Your task to perform on an android device: install app "Fetch Rewards" Image 0: 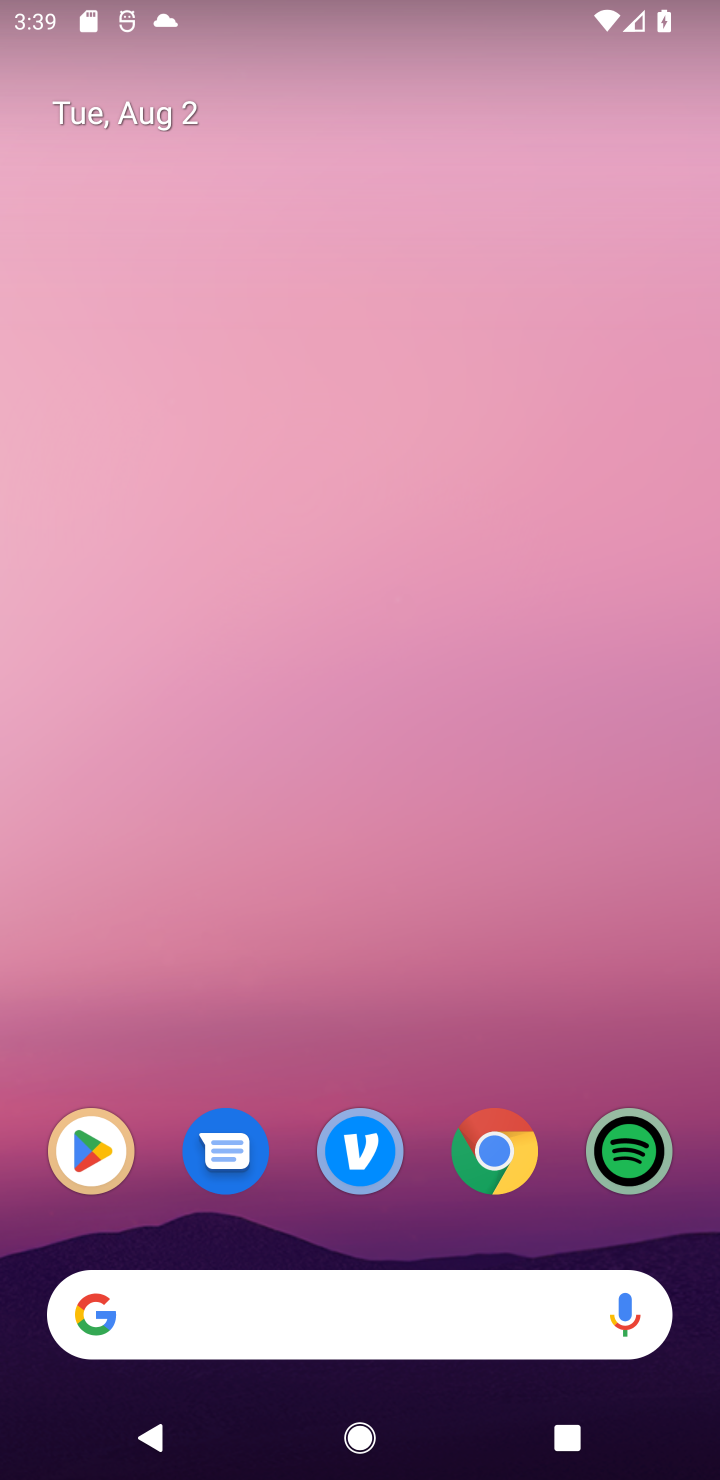
Step 0: drag from (460, 1039) to (435, 309)
Your task to perform on an android device: install app "Fetch Rewards" Image 1: 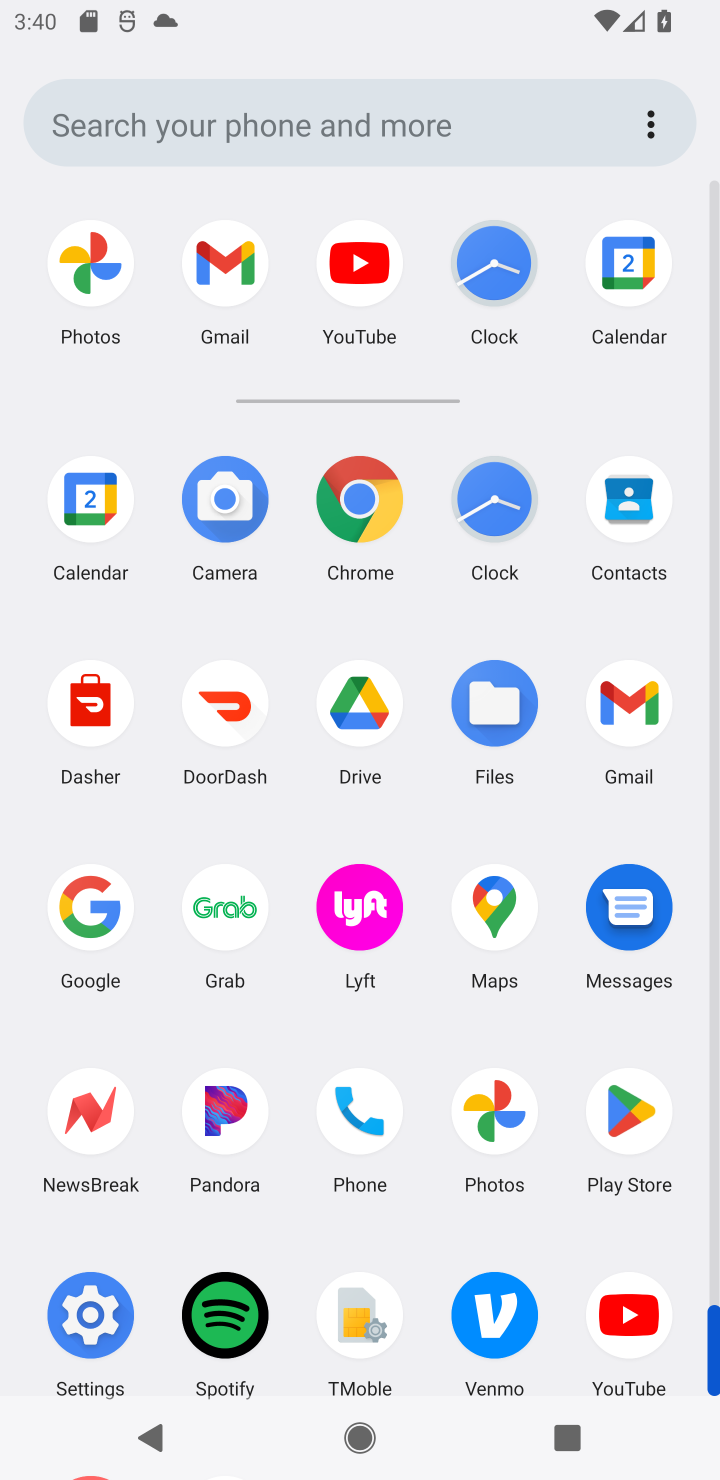
Step 1: click (643, 1134)
Your task to perform on an android device: install app "Fetch Rewards" Image 2: 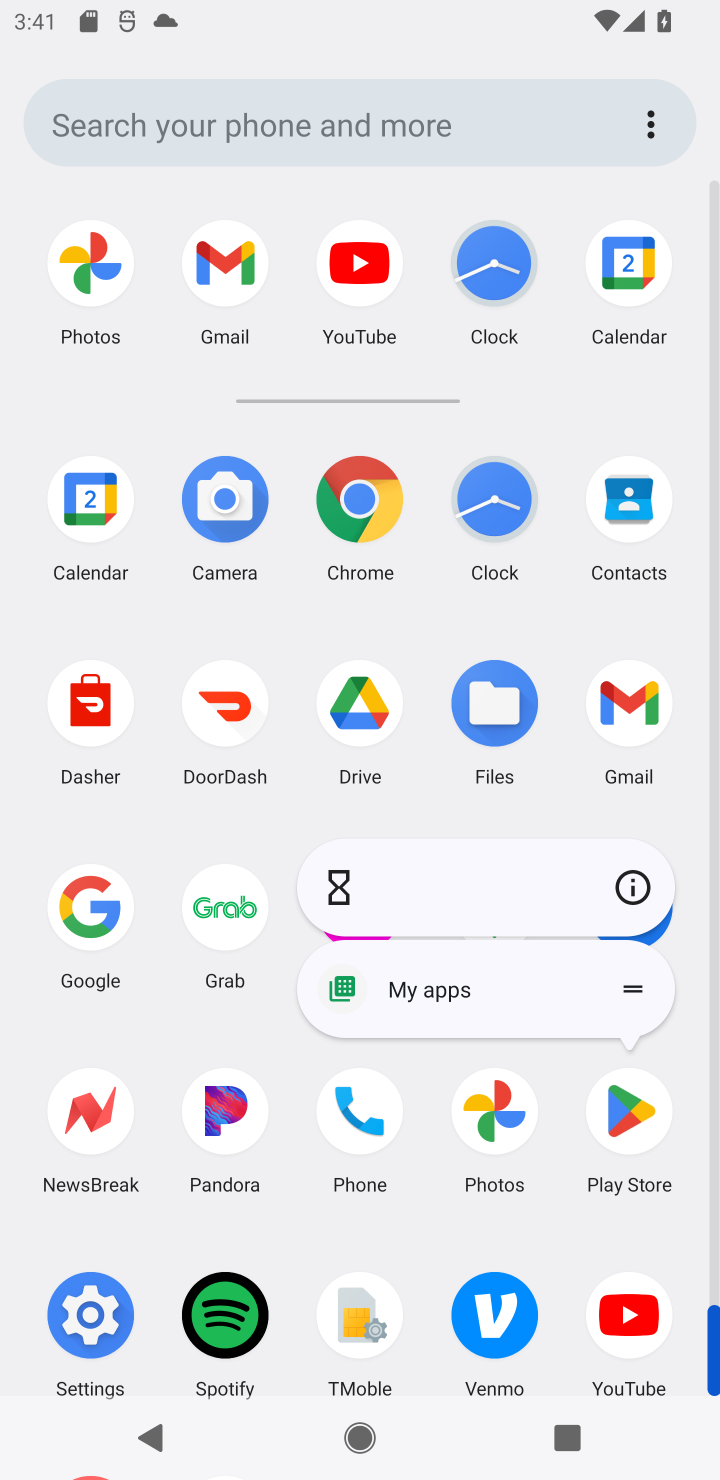
Step 2: click (647, 1133)
Your task to perform on an android device: install app "Fetch Rewards" Image 3: 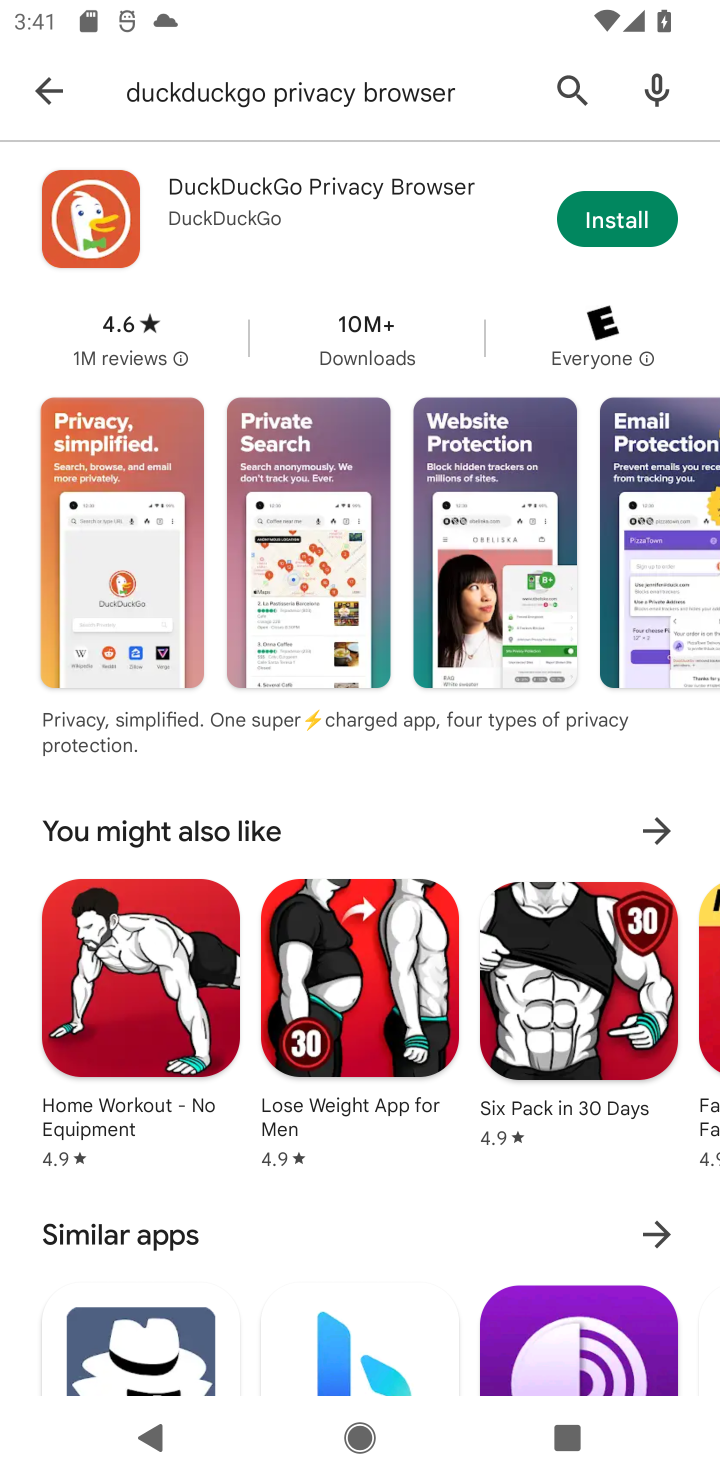
Step 3: click (50, 92)
Your task to perform on an android device: install app "Fetch Rewards" Image 4: 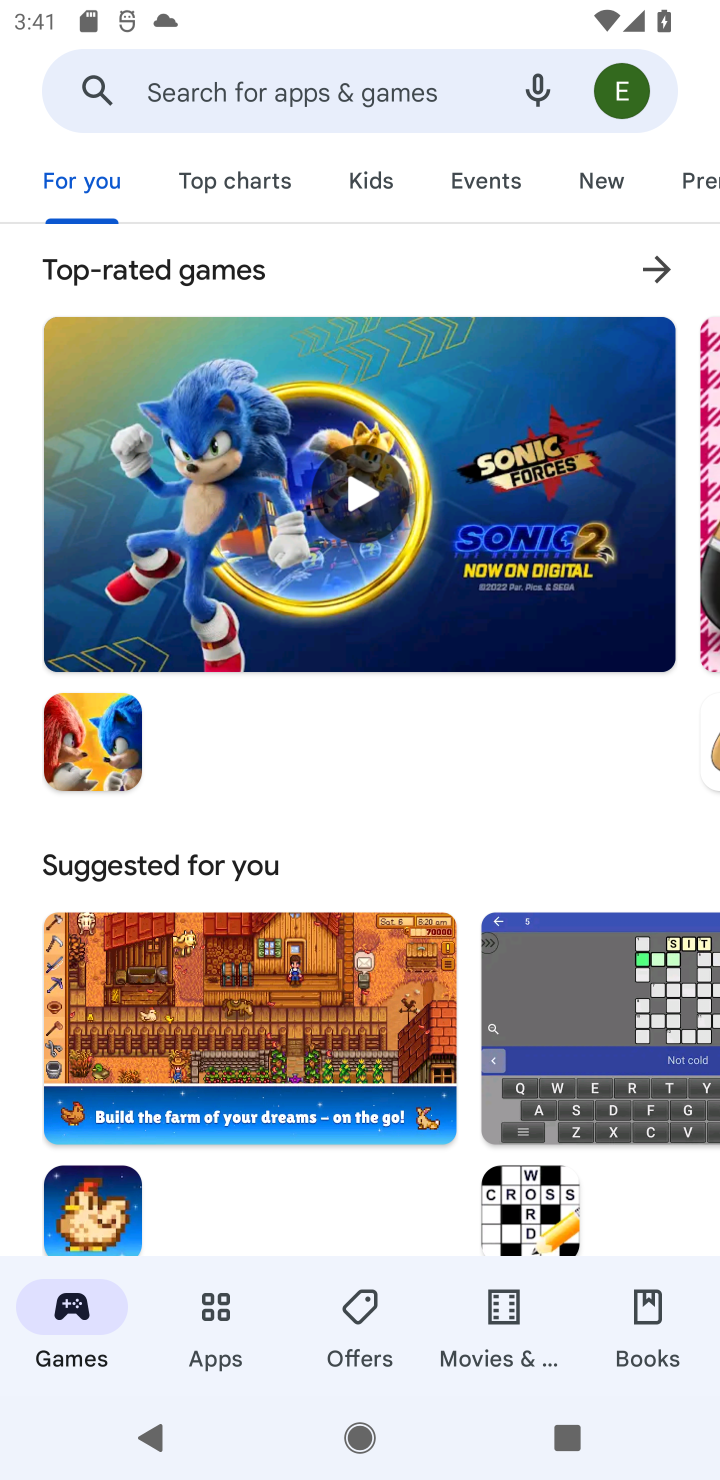
Step 4: click (201, 106)
Your task to perform on an android device: install app "Fetch Rewards" Image 5: 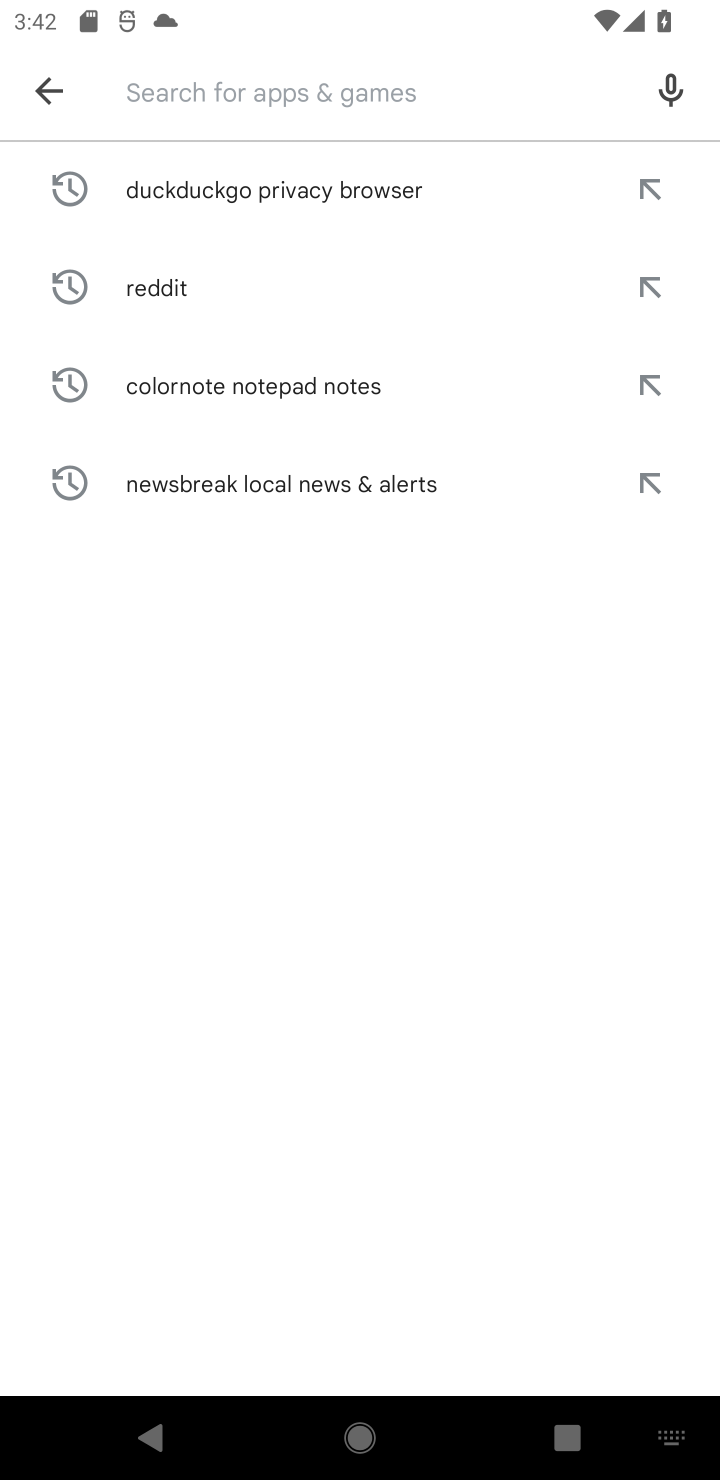
Step 5: type "Fetch Rewards"
Your task to perform on an android device: install app "Fetch Rewards" Image 6: 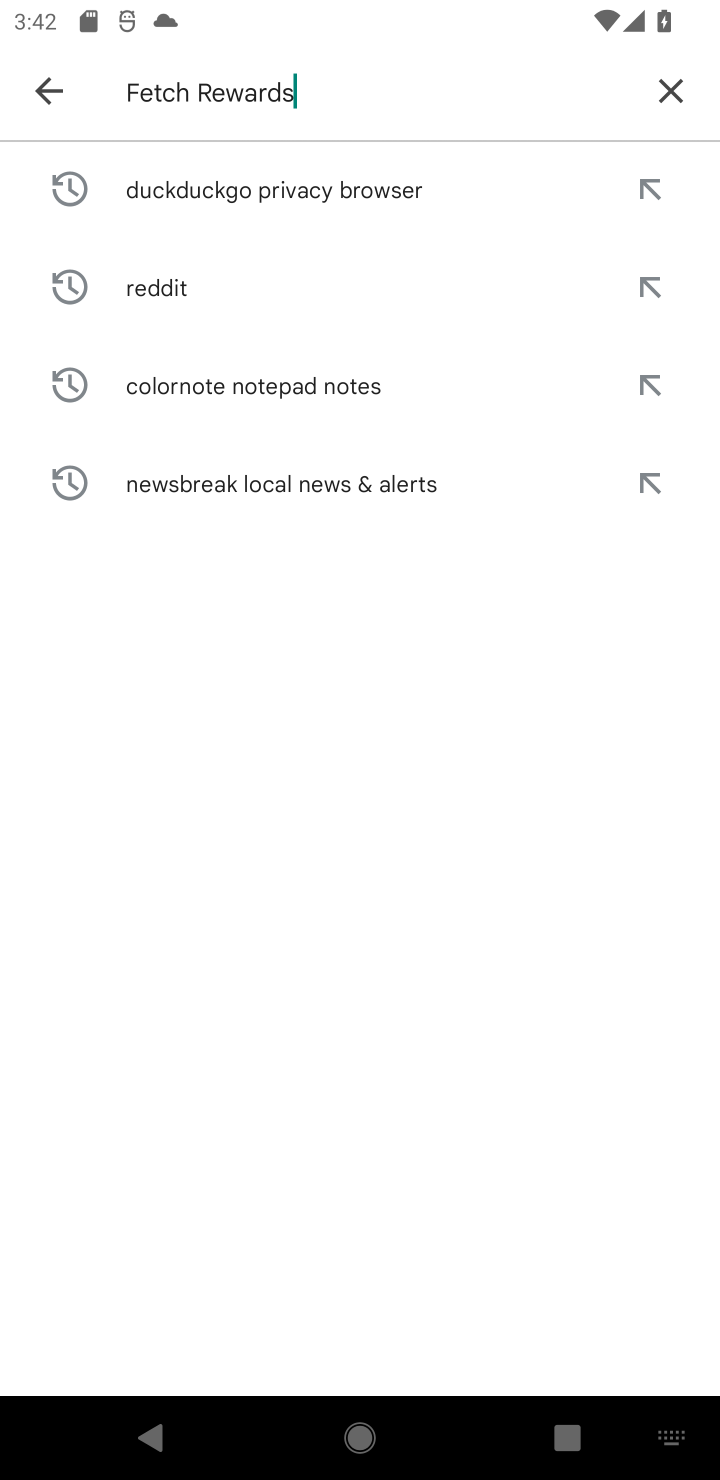
Step 6: type ""
Your task to perform on an android device: install app "Fetch Rewards" Image 7: 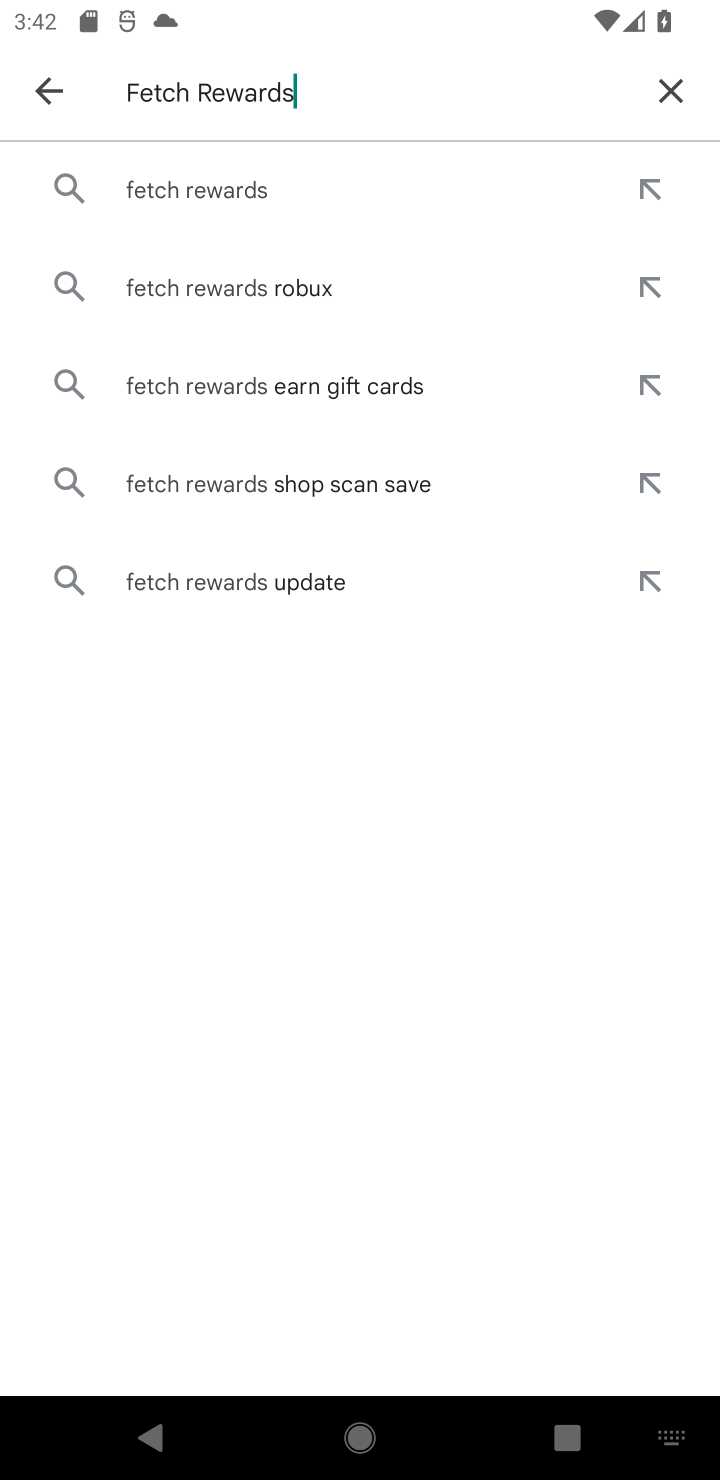
Step 7: click (356, 201)
Your task to perform on an android device: install app "Fetch Rewards" Image 8: 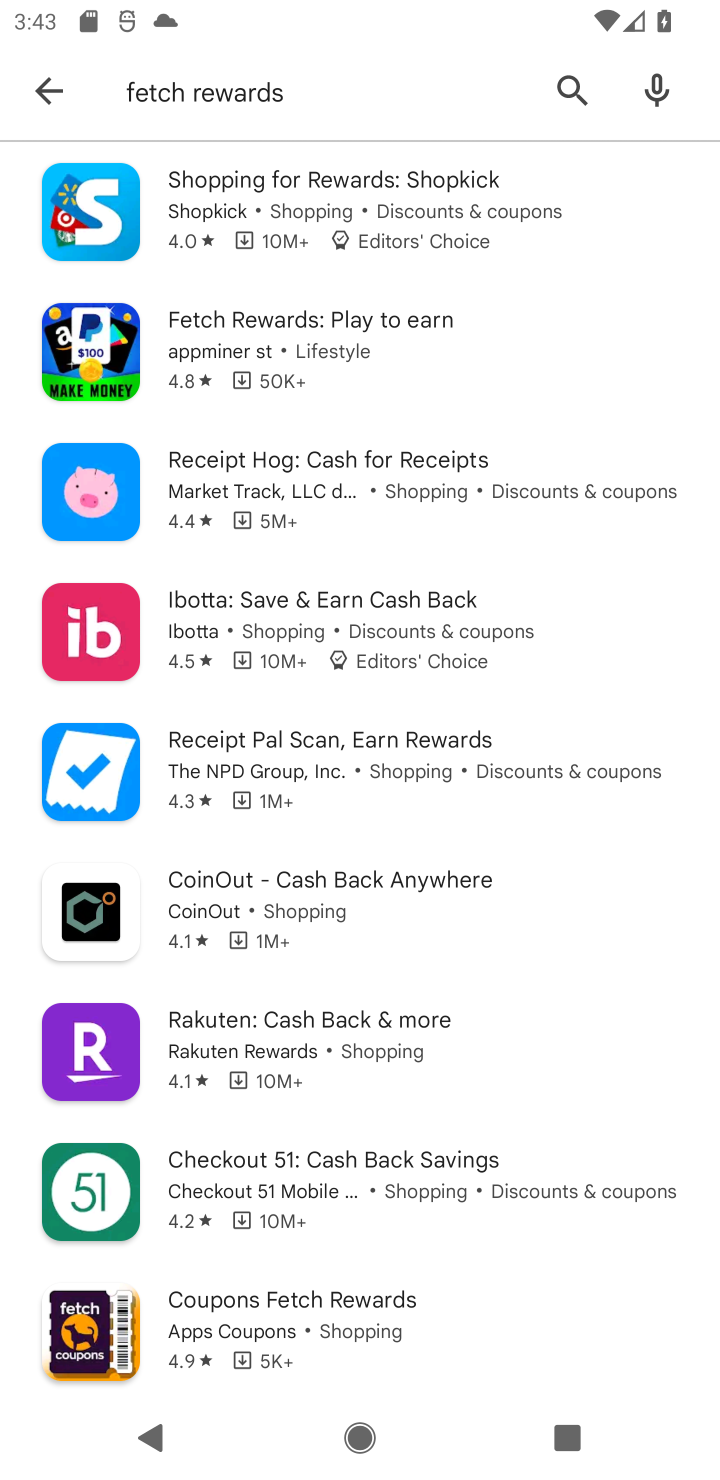
Step 8: click (347, 383)
Your task to perform on an android device: install app "Fetch Rewards" Image 9: 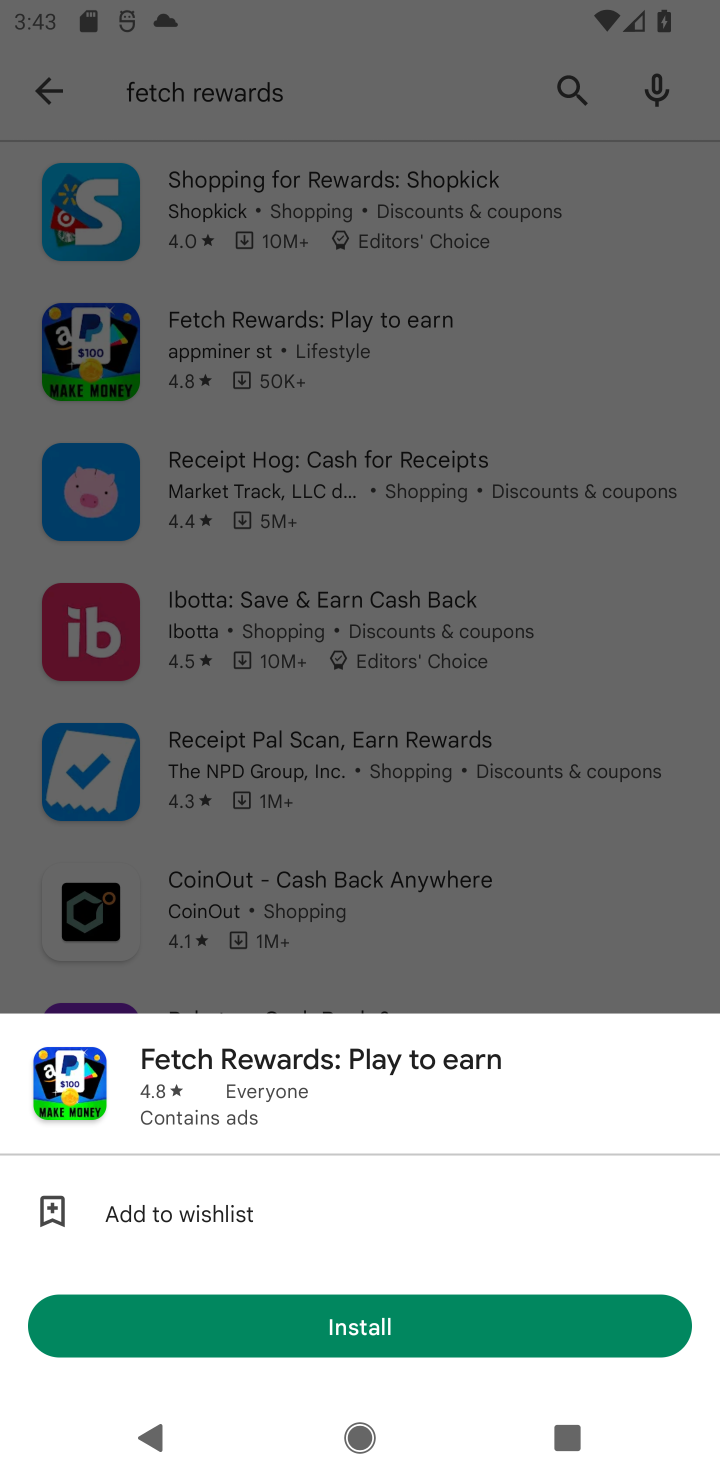
Step 9: click (527, 1311)
Your task to perform on an android device: install app "Fetch Rewards" Image 10: 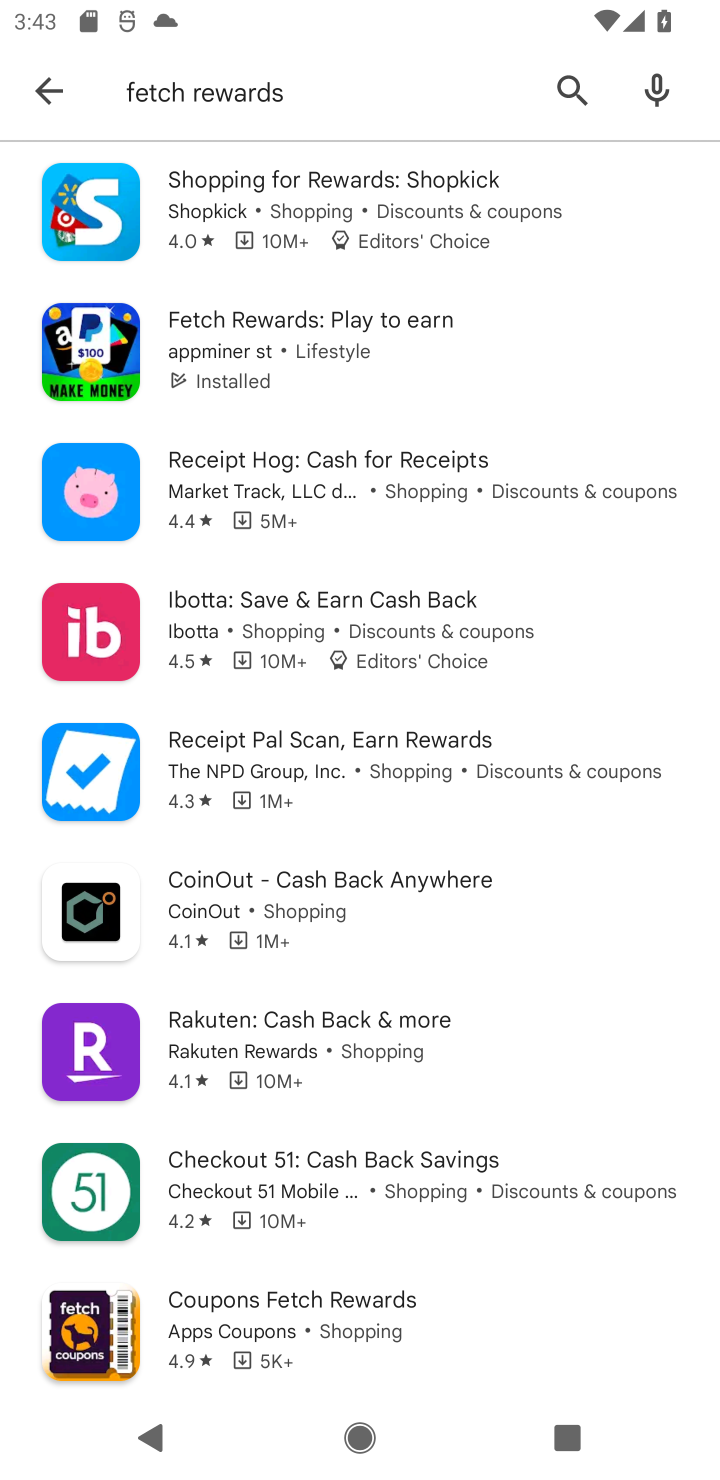
Step 10: task complete